Your task to perform on an android device: Go to network settings Image 0: 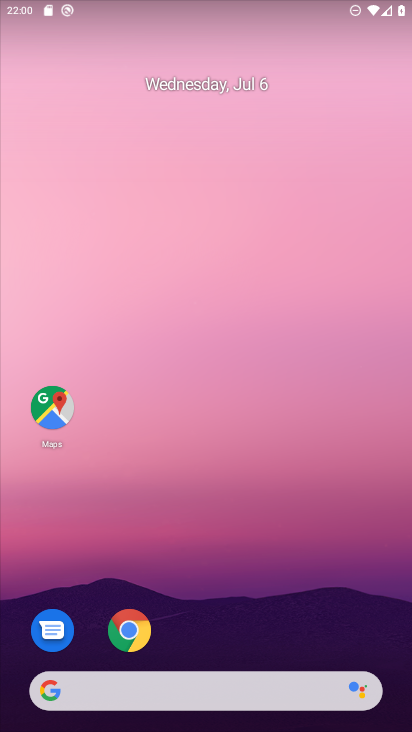
Step 0: press home button
Your task to perform on an android device: Go to network settings Image 1: 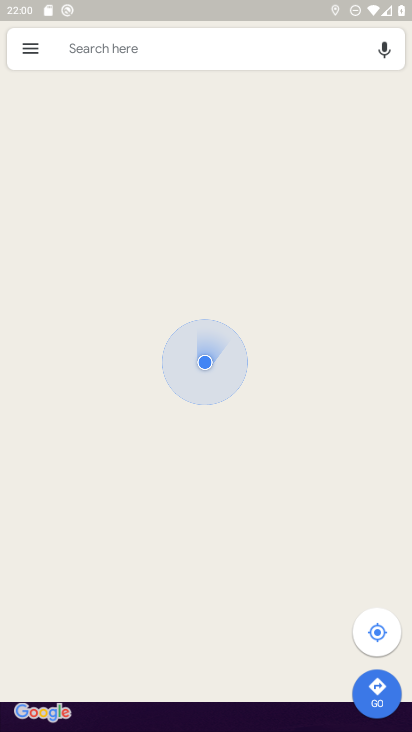
Step 1: drag from (332, 691) to (292, 76)
Your task to perform on an android device: Go to network settings Image 2: 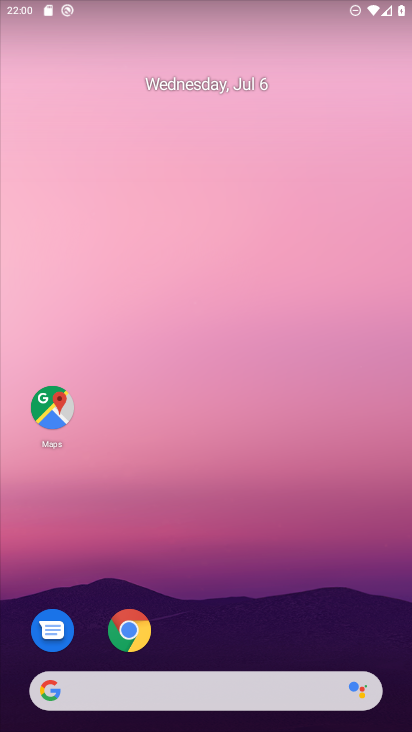
Step 2: drag from (231, 650) to (231, 12)
Your task to perform on an android device: Go to network settings Image 3: 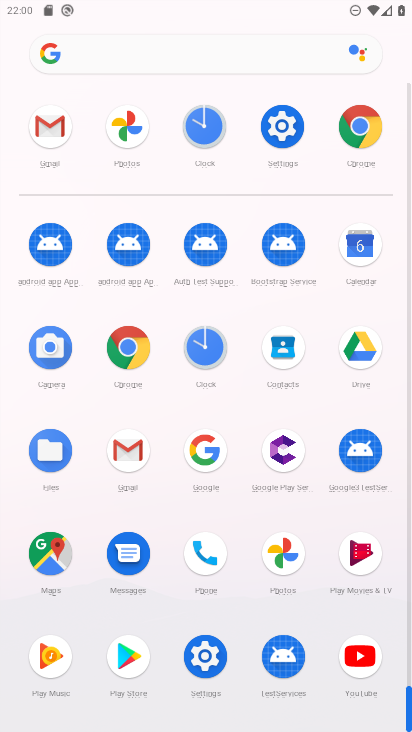
Step 3: click (284, 136)
Your task to perform on an android device: Go to network settings Image 4: 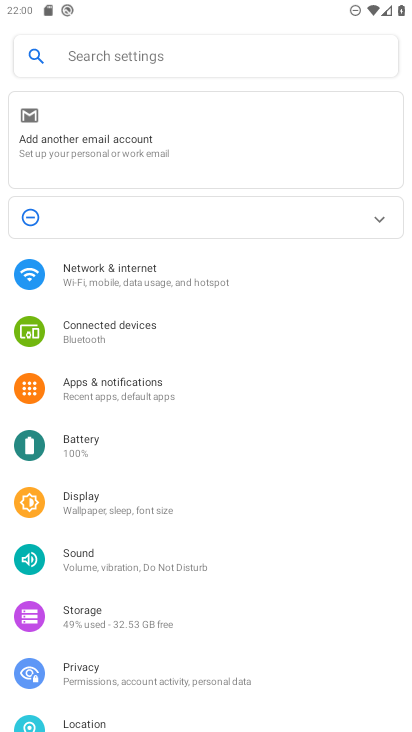
Step 4: click (114, 286)
Your task to perform on an android device: Go to network settings Image 5: 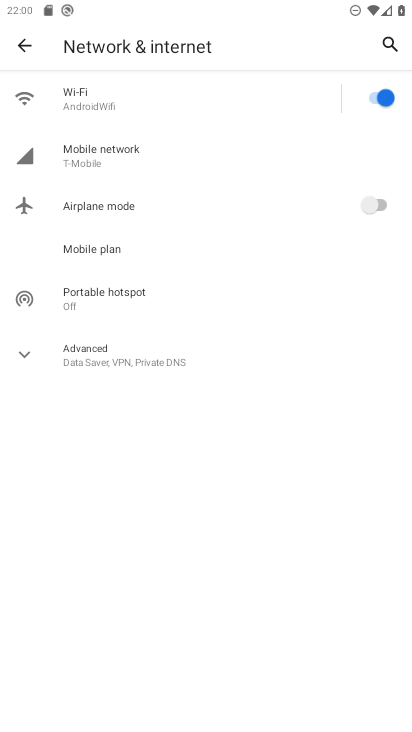
Step 5: task complete